Your task to perform on an android device: Search for seafood restaurants on Google Maps Image 0: 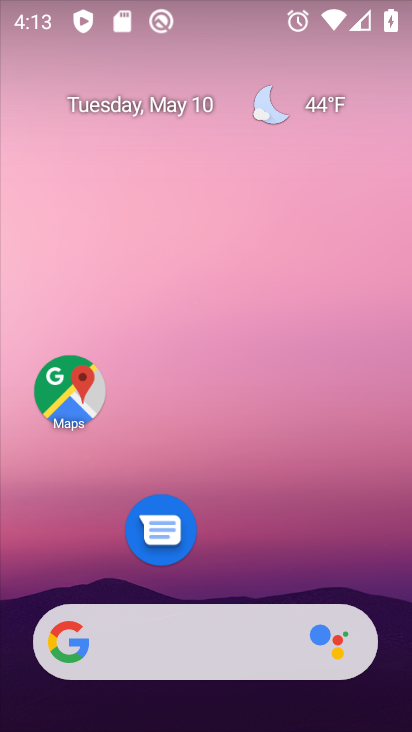
Step 0: click (59, 388)
Your task to perform on an android device: Search for seafood restaurants on Google Maps Image 1: 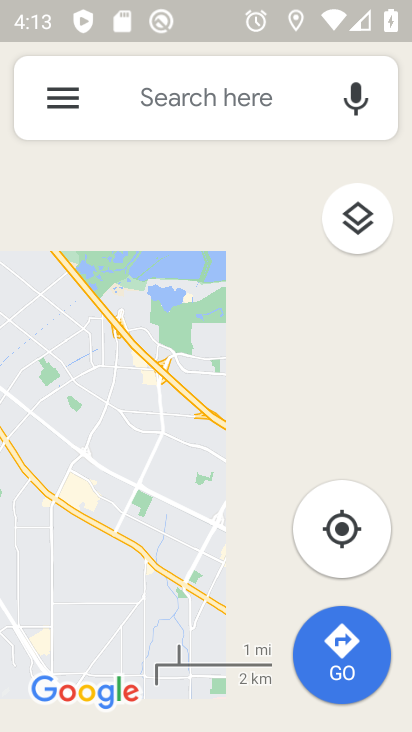
Step 1: click (205, 106)
Your task to perform on an android device: Search for seafood restaurants on Google Maps Image 2: 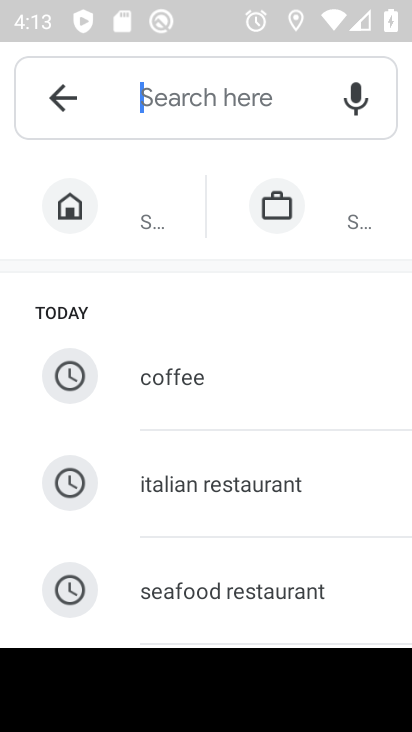
Step 2: click (181, 595)
Your task to perform on an android device: Search for seafood restaurants on Google Maps Image 3: 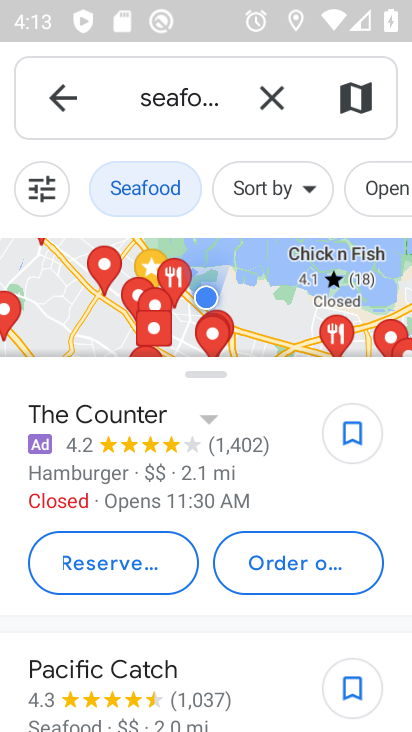
Step 3: task complete